Your task to perform on an android device: Check the news Image 0: 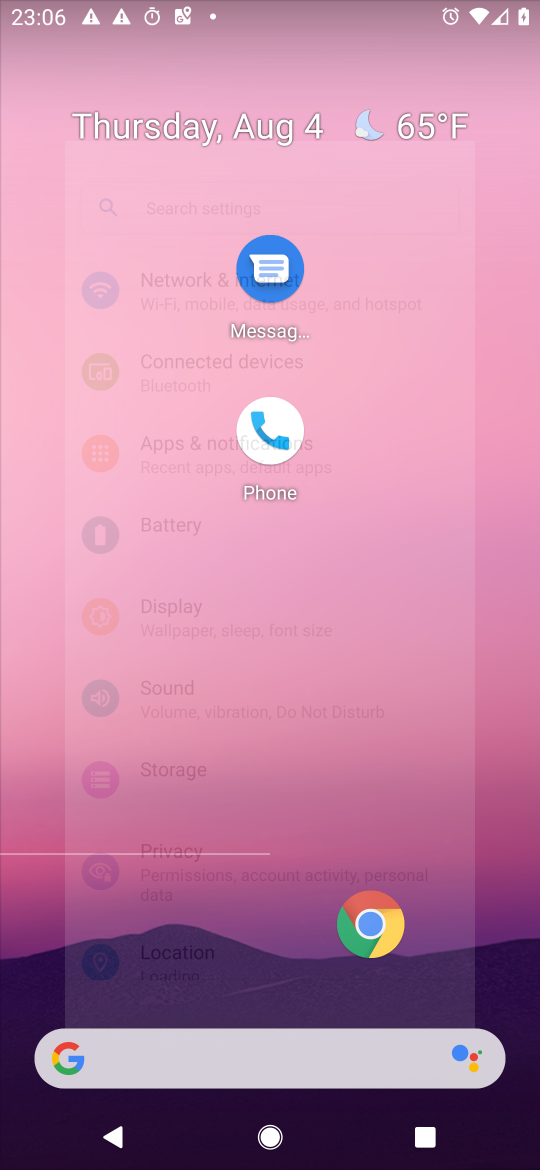
Step 0: drag from (202, 961) to (255, 275)
Your task to perform on an android device: Check the news Image 1: 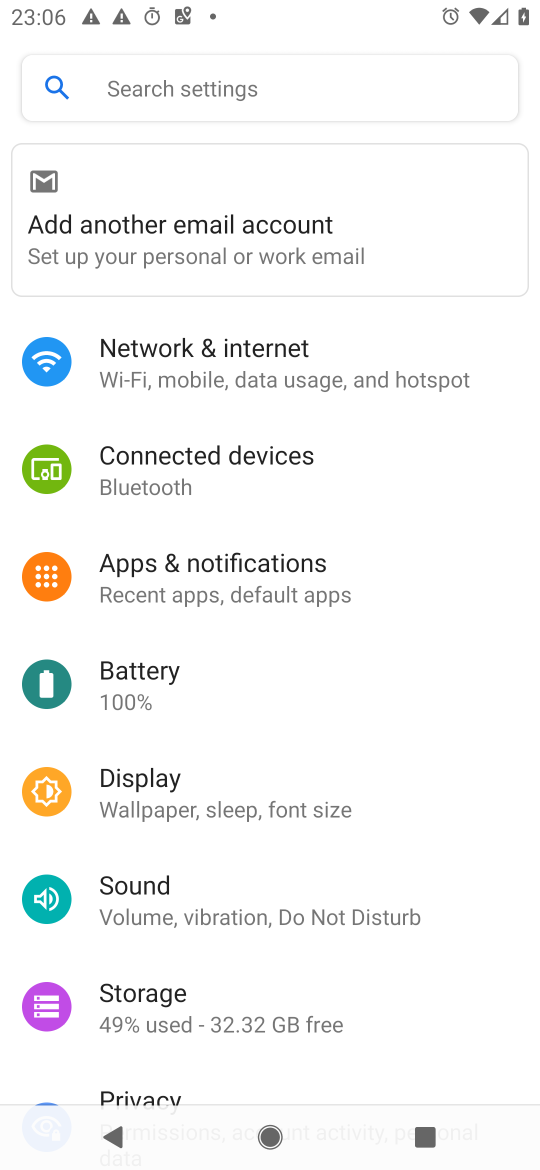
Step 1: press home button
Your task to perform on an android device: Check the news Image 2: 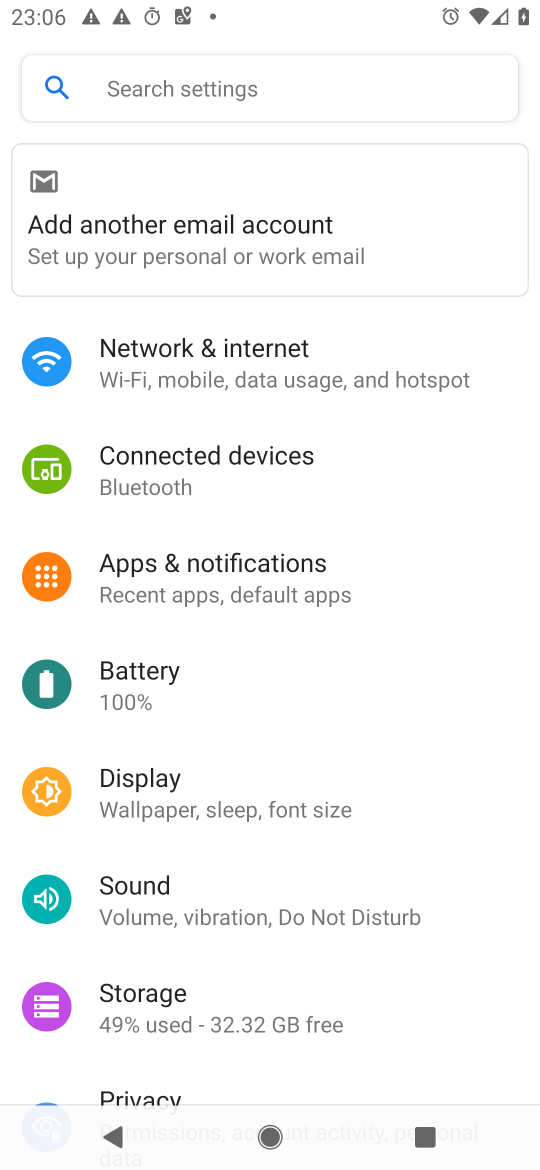
Step 2: click (287, 579)
Your task to perform on an android device: Check the news Image 3: 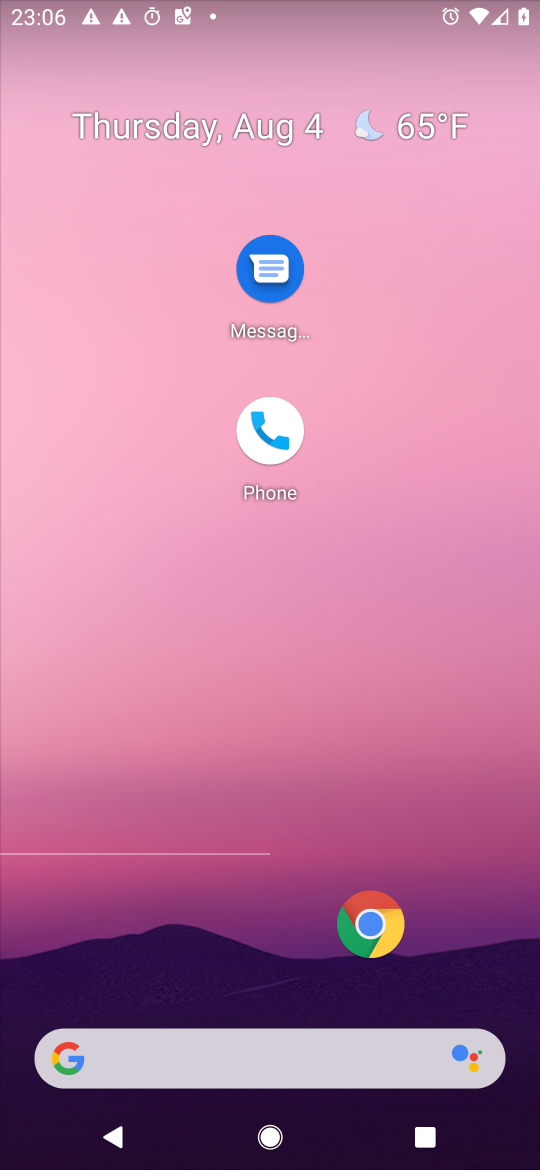
Step 3: drag from (264, 878) to (368, 102)
Your task to perform on an android device: Check the news Image 4: 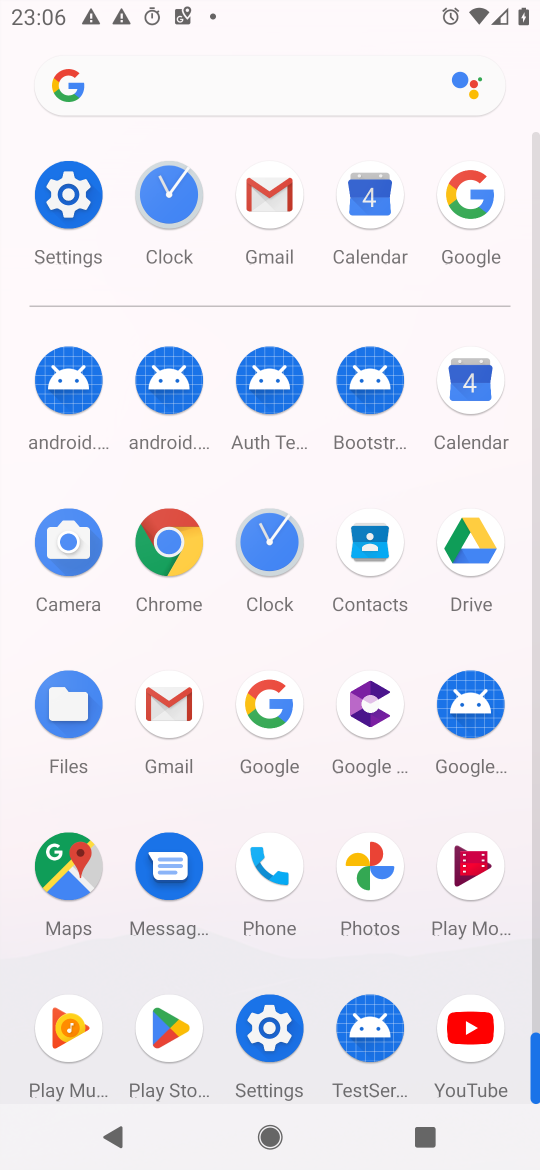
Step 4: click (191, 67)
Your task to perform on an android device: Check the news Image 5: 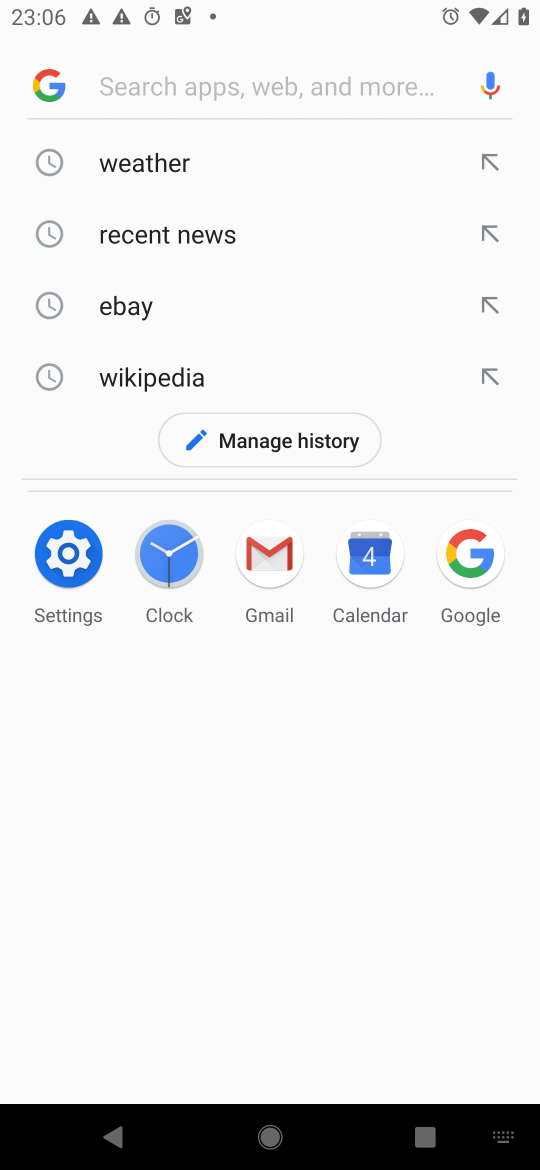
Step 5: type "news"
Your task to perform on an android device: Check the news Image 6: 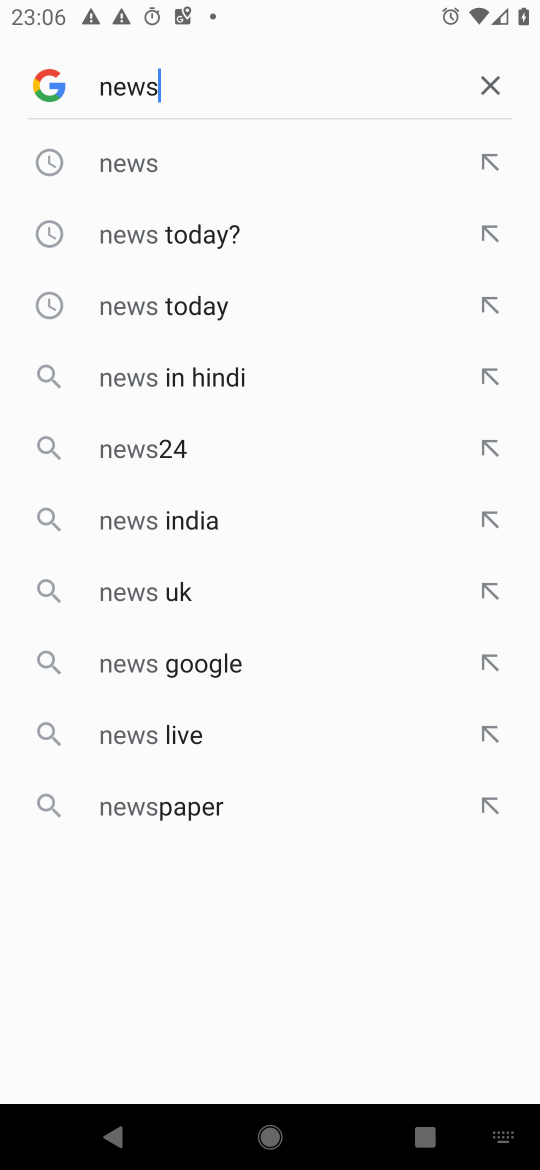
Step 6: click (150, 161)
Your task to perform on an android device: Check the news Image 7: 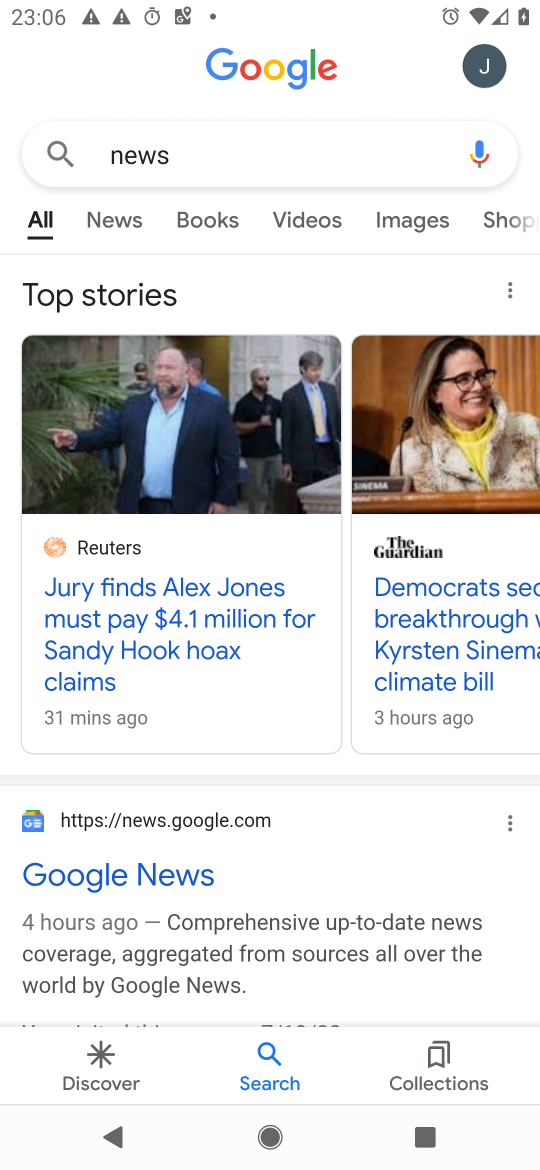
Step 7: drag from (286, 870) to (339, 294)
Your task to perform on an android device: Check the news Image 8: 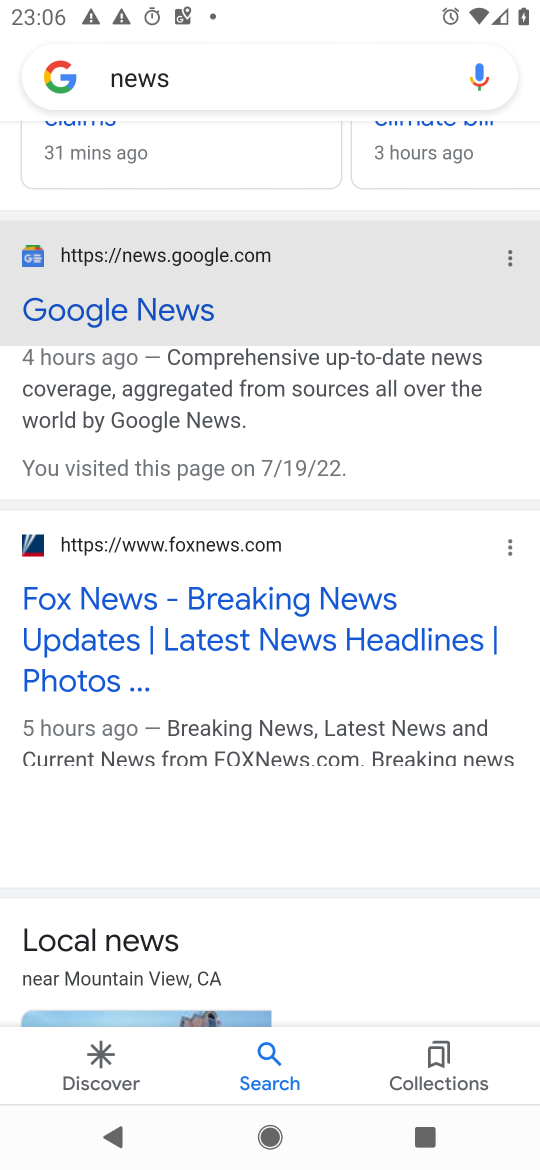
Step 8: click (96, 284)
Your task to perform on an android device: Check the news Image 9: 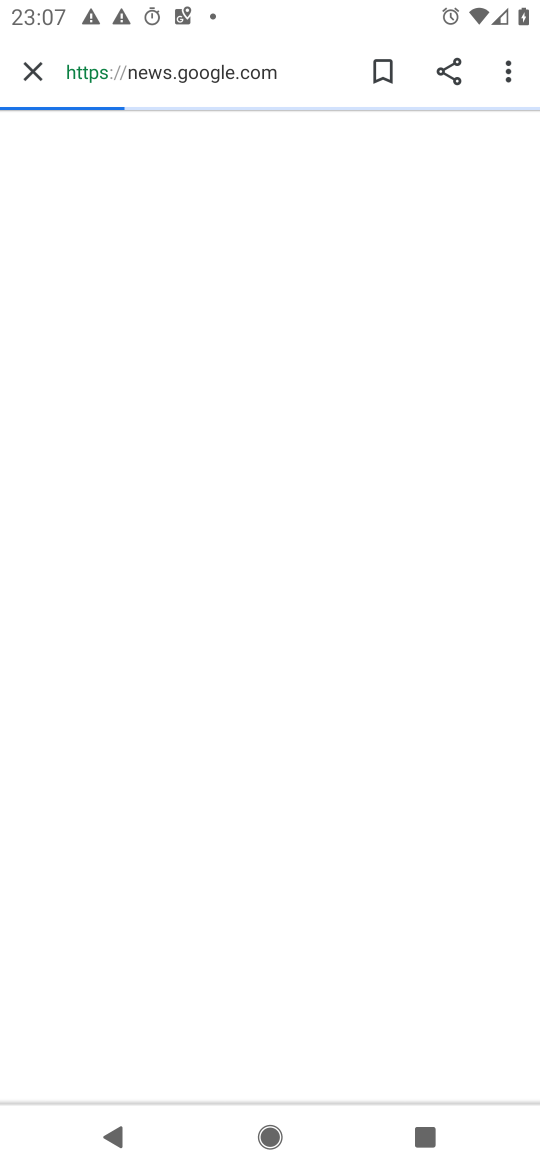
Step 9: task complete